Your task to perform on an android device: toggle data saver in the chrome app Image 0: 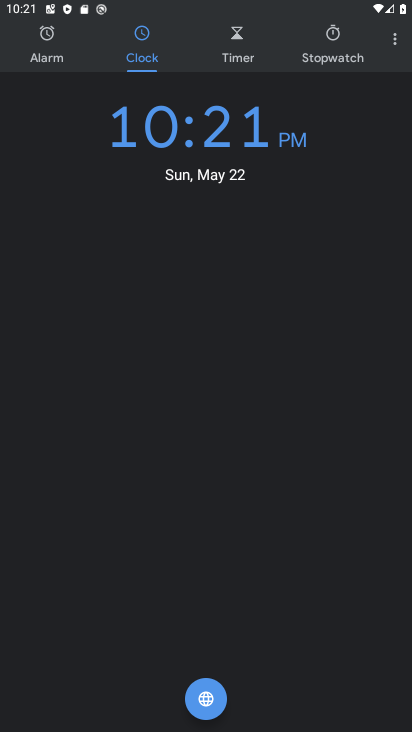
Step 0: press home button
Your task to perform on an android device: toggle data saver in the chrome app Image 1: 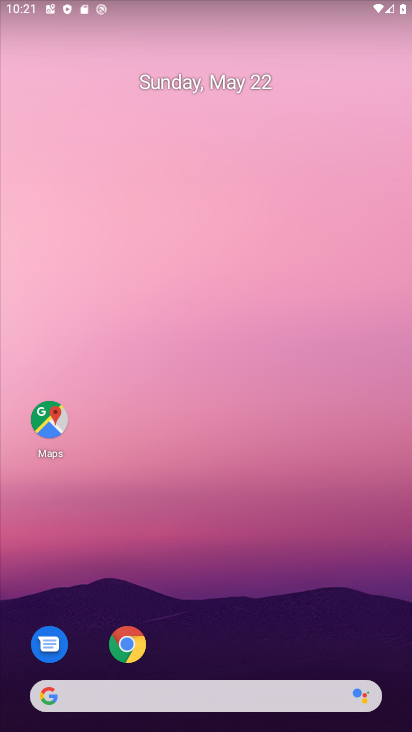
Step 1: click (129, 652)
Your task to perform on an android device: toggle data saver in the chrome app Image 2: 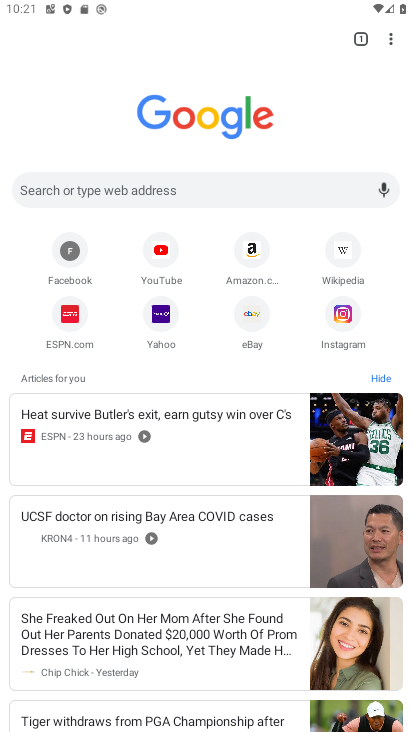
Step 2: click (396, 37)
Your task to perform on an android device: toggle data saver in the chrome app Image 3: 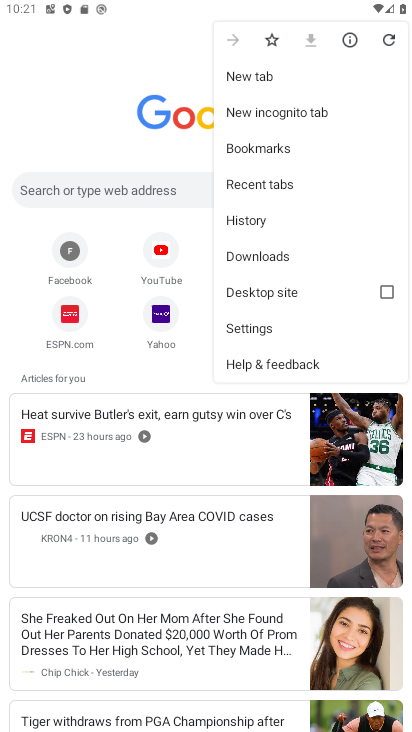
Step 3: click (267, 325)
Your task to perform on an android device: toggle data saver in the chrome app Image 4: 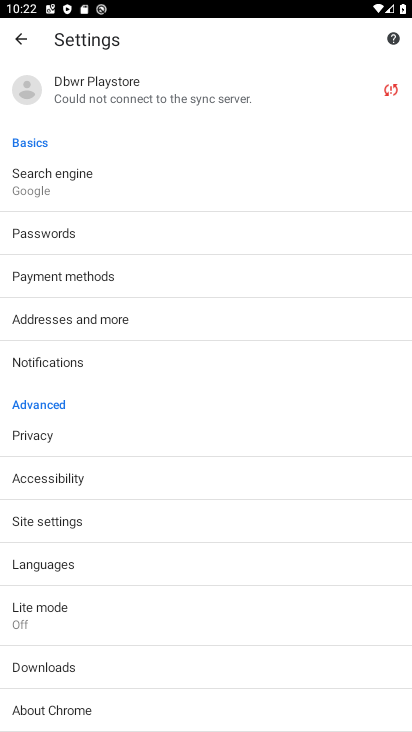
Step 4: click (40, 612)
Your task to perform on an android device: toggle data saver in the chrome app Image 5: 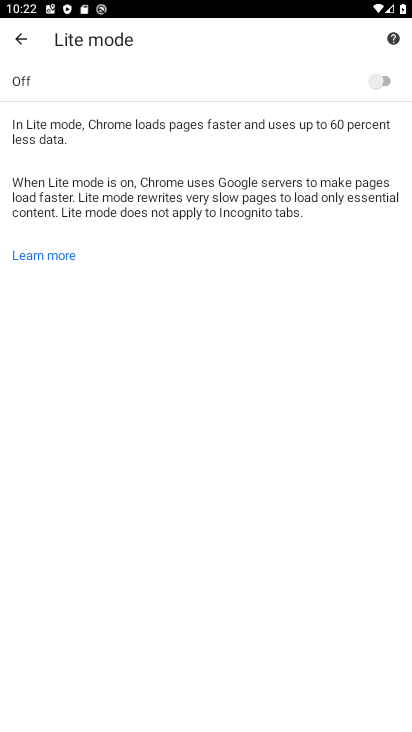
Step 5: click (385, 82)
Your task to perform on an android device: toggle data saver in the chrome app Image 6: 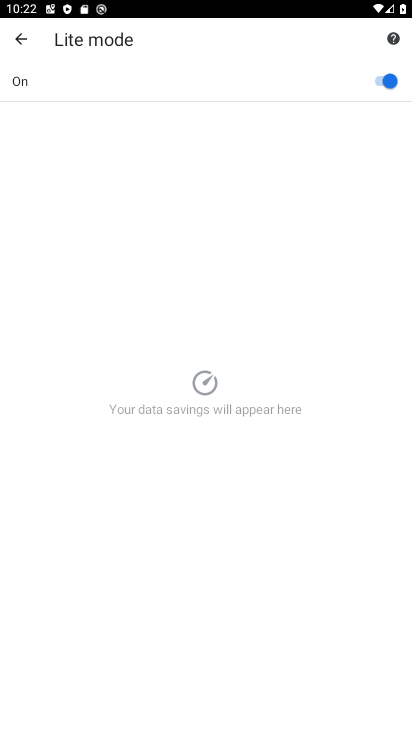
Step 6: task complete